Your task to perform on an android device: turn off location Image 0: 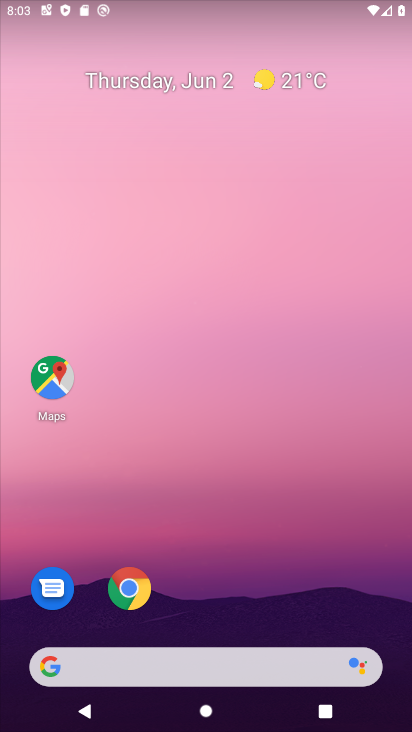
Step 0: drag from (254, 661) to (252, 246)
Your task to perform on an android device: turn off location Image 1: 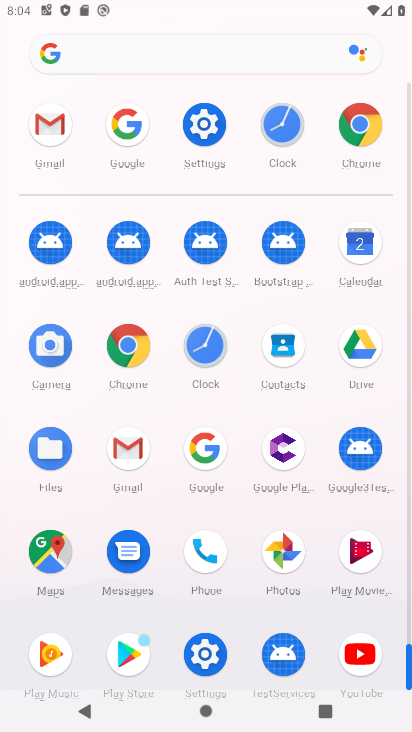
Step 1: click (203, 132)
Your task to perform on an android device: turn off location Image 2: 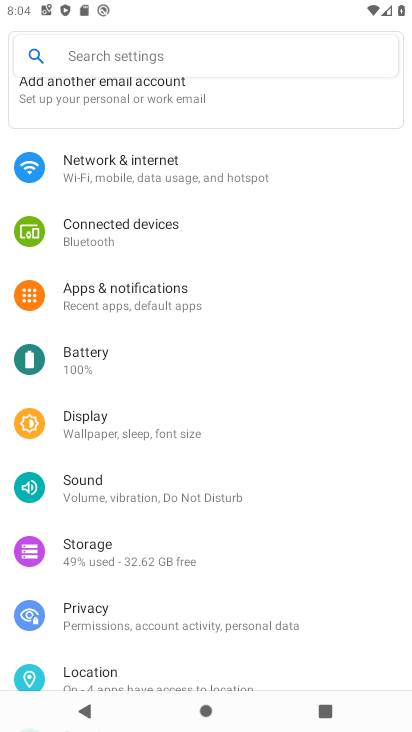
Step 2: drag from (161, 591) to (203, 416)
Your task to perform on an android device: turn off location Image 3: 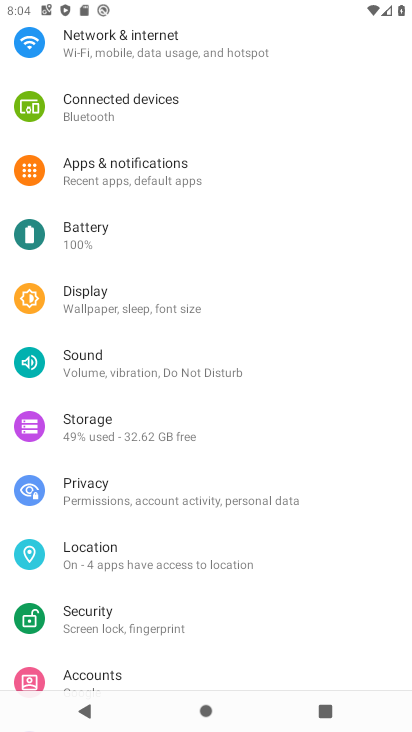
Step 3: click (163, 556)
Your task to perform on an android device: turn off location Image 4: 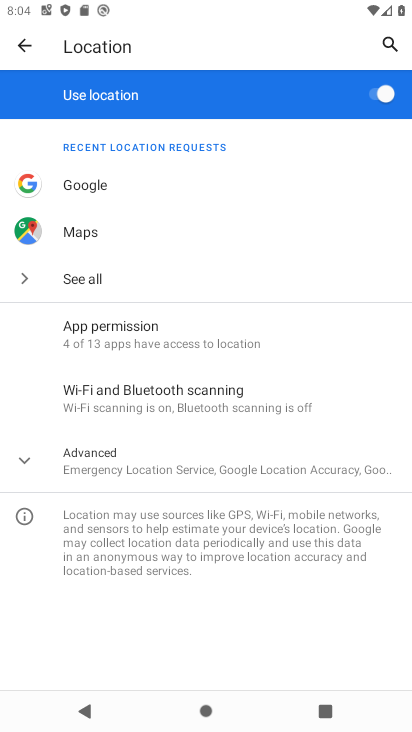
Step 4: click (370, 96)
Your task to perform on an android device: turn off location Image 5: 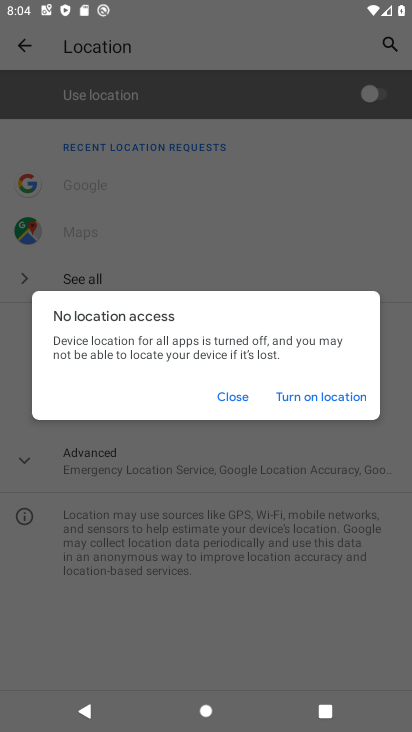
Step 5: click (234, 382)
Your task to perform on an android device: turn off location Image 6: 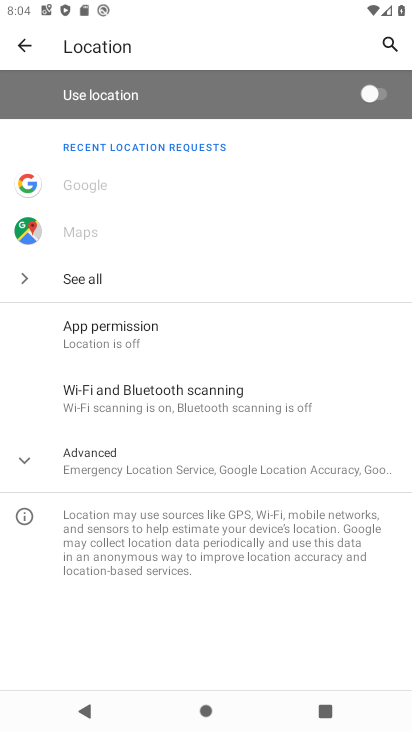
Step 6: task complete